Your task to perform on an android device: Open Google Maps Image 0: 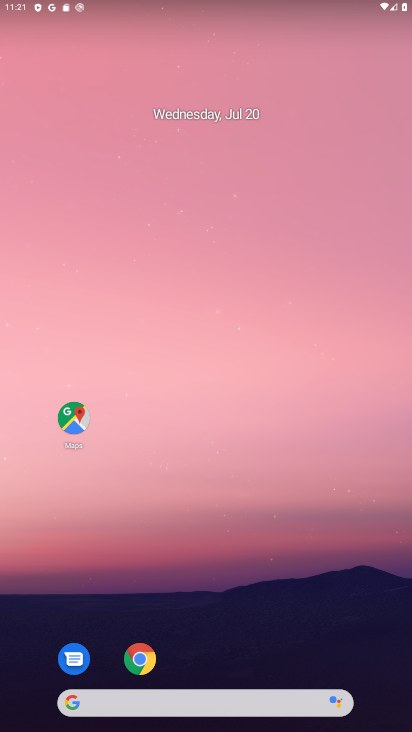
Step 0: click (72, 418)
Your task to perform on an android device: Open Google Maps Image 1: 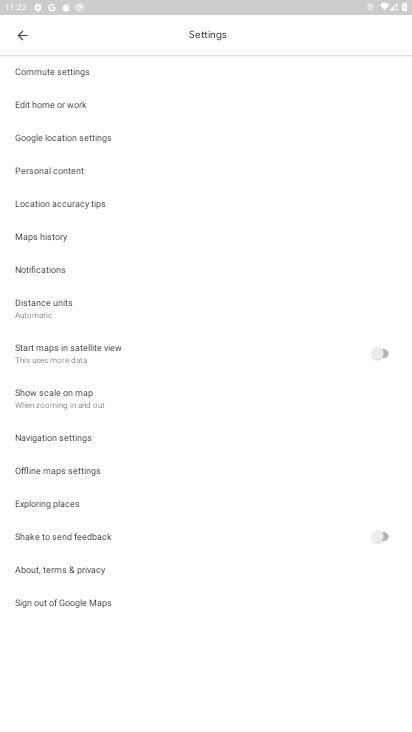
Step 1: task complete